Your task to perform on an android device: toggle wifi Image 0: 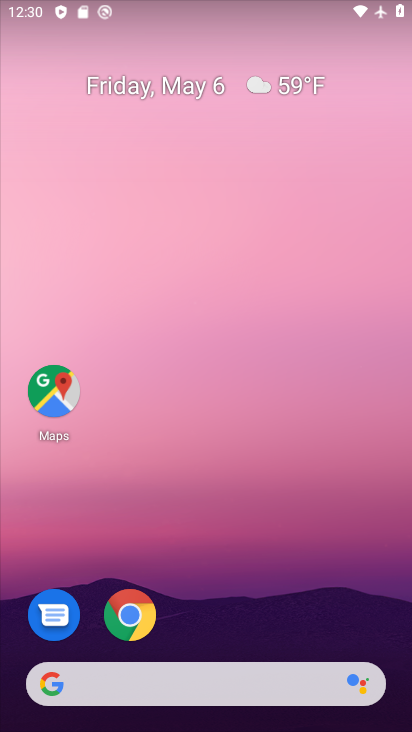
Step 0: drag from (323, 601) to (381, 60)
Your task to perform on an android device: toggle wifi Image 1: 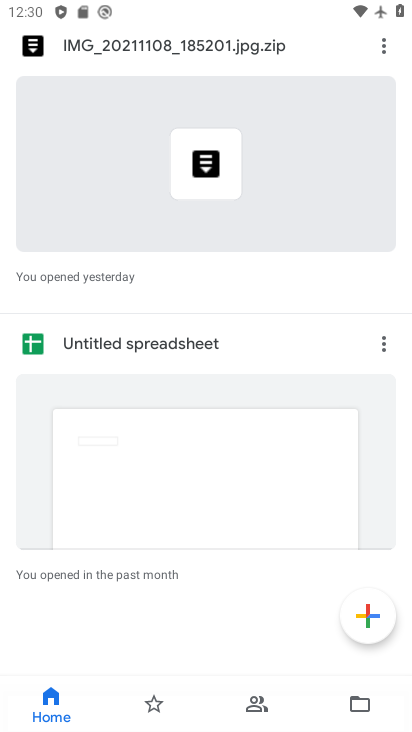
Step 1: press home button
Your task to perform on an android device: toggle wifi Image 2: 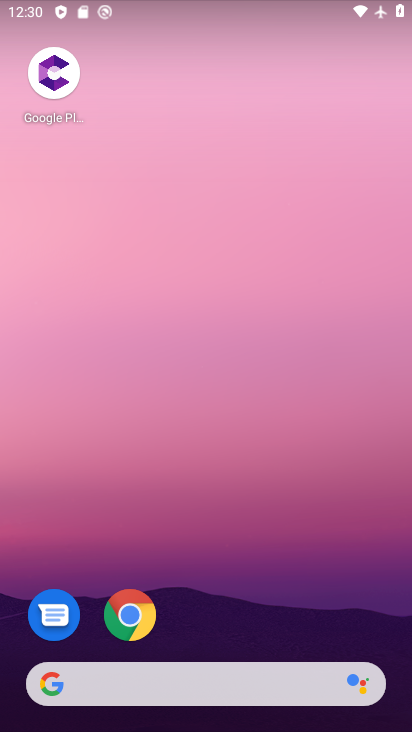
Step 2: drag from (276, 575) to (345, 20)
Your task to perform on an android device: toggle wifi Image 3: 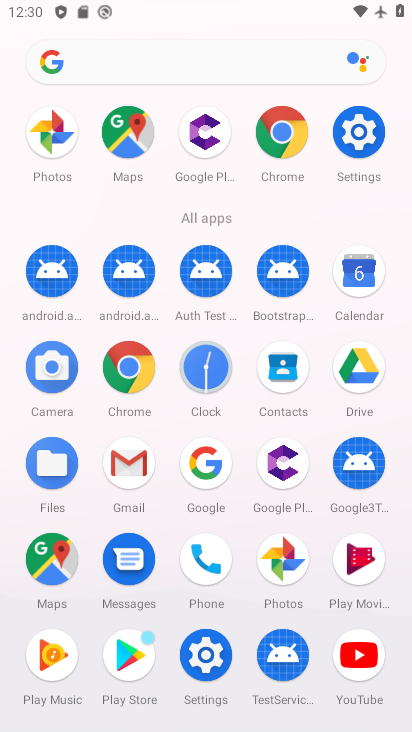
Step 3: click (350, 138)
Your task to perform on an android device: toggle wifi Image 4: 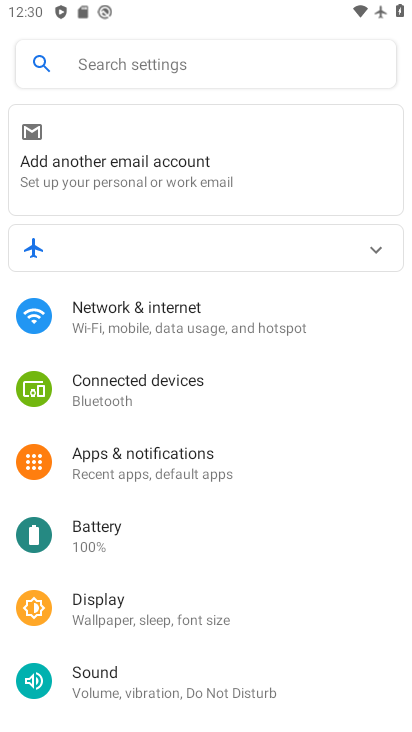
Step 4: click (191, 318)
Your task to perform on an android device: toggle wifi Image 5: 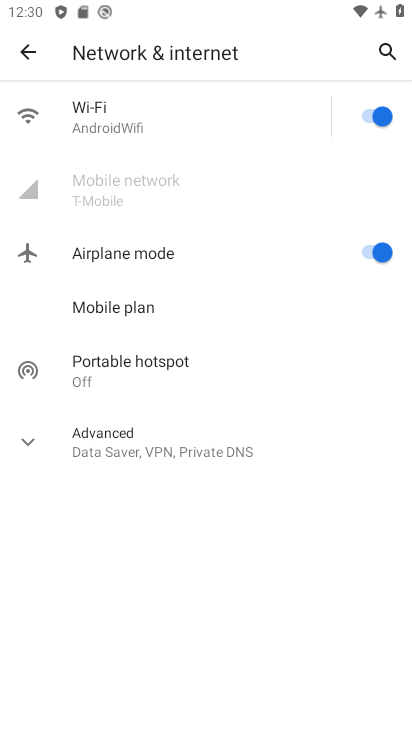
Step 5: click (376, 120)
Your task to perform on an android device: toggle wifi Image 6: 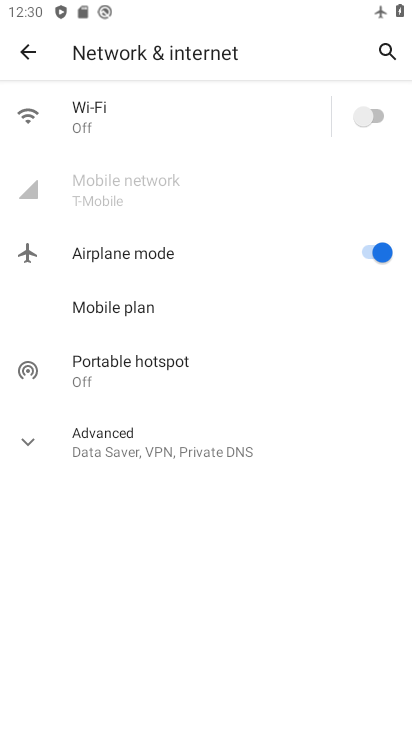
Step 6: task complete